Your task to perform on an android device: delete location history Image 0: 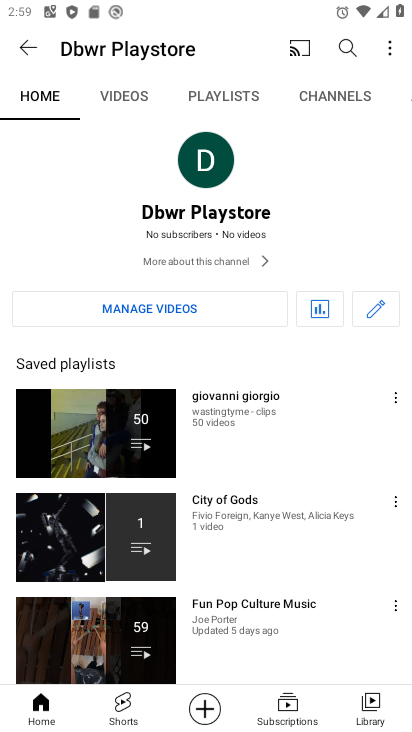
Step 0: press home button
Your task to perform on an android device: delete location history Image 1: 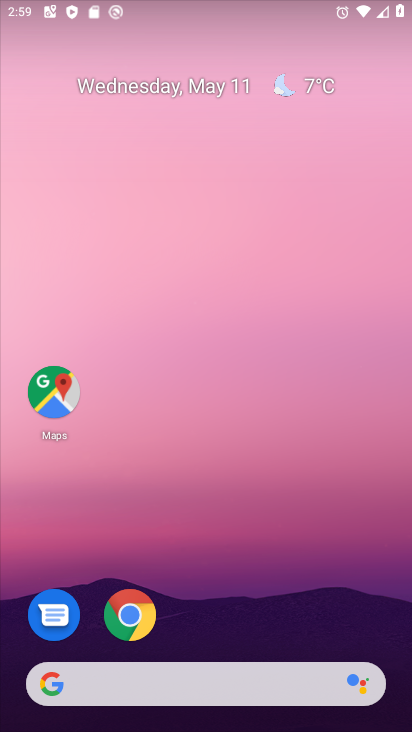
Step 1: drag from (274, 439) to (296, 60)
Your task to perform on an android device: delete location history Image 2: 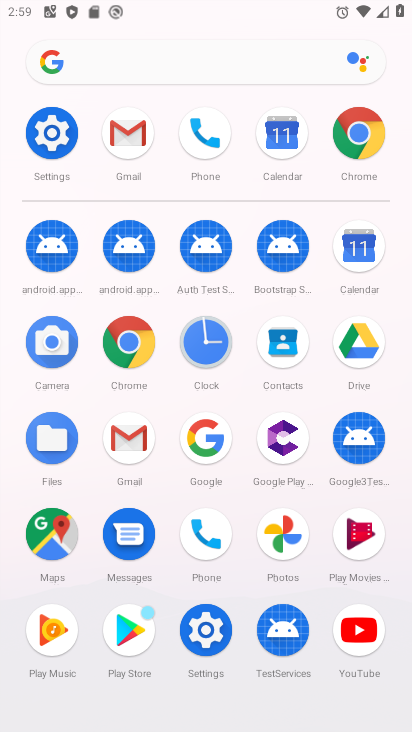
Step 2: click (47, 530)
Your task to perform on an android device: delete location history Image 3: 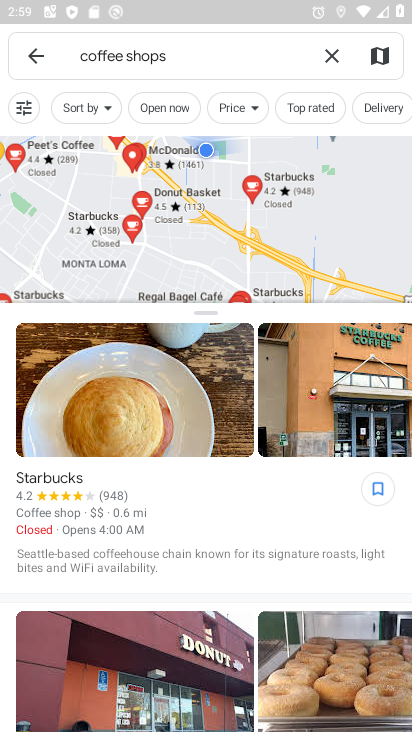
Step 3: click (30, 52)
Your task to perform on an android device: delete location history Image 4: 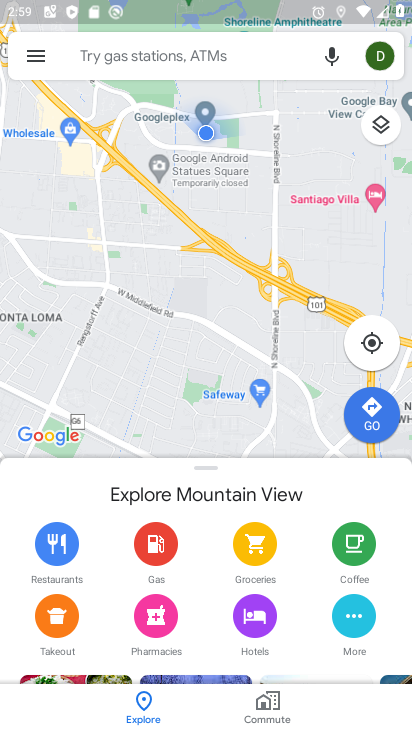
Step 4: click (29, 54)
Your task to perform on an android device: delete location history Image 5: 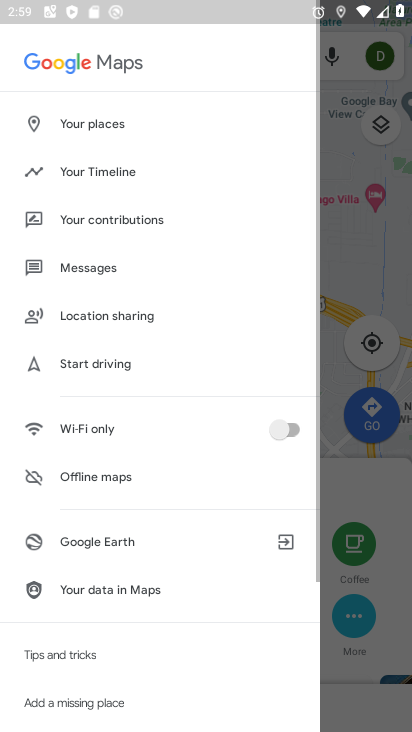
Step 5: drag from (121, 576) to (252, 168)
Your task to perform on an android device: delete location history Image 6: 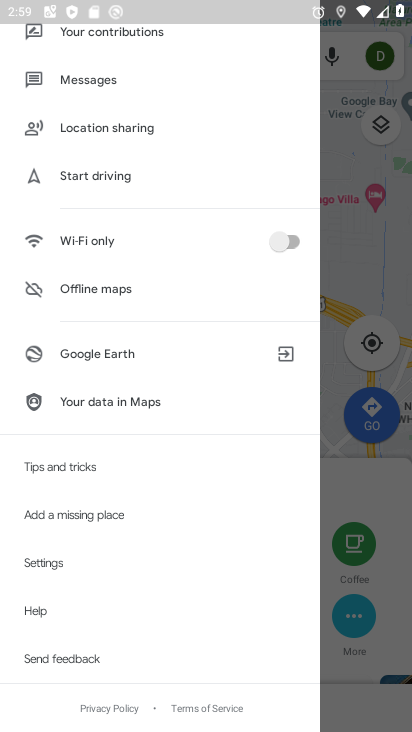
Step 6: click (73, 571)
Your task to perform on an android device: delete location history Image 7: 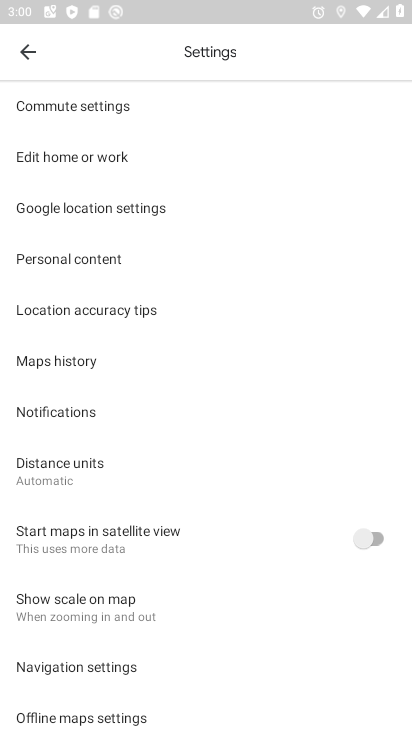
Step 7: click (99, 364)
Your task to perform on an android device: delete location history Image 8: 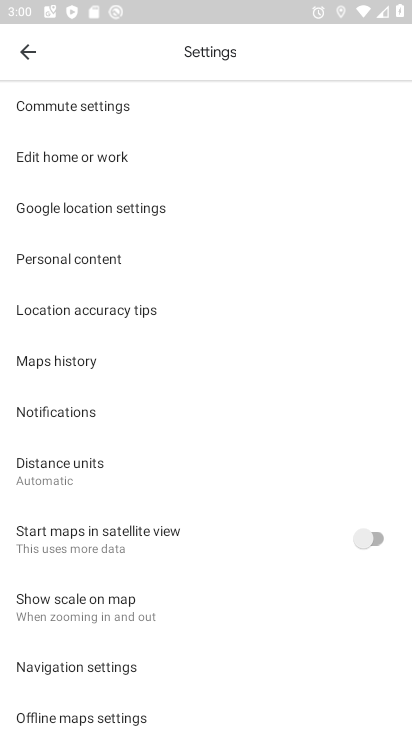
Step 8: click (78, 358)
Your task to perform on an android device: delete location history Image 9: 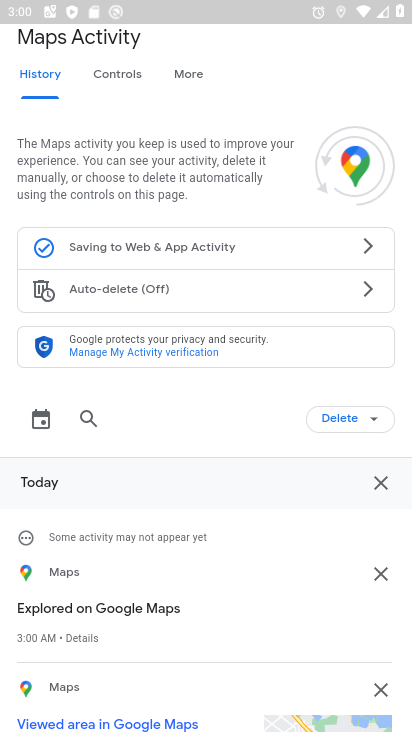
Step 9: click (326, 414)
Your task to perform on an android device: delete location history Image 10: 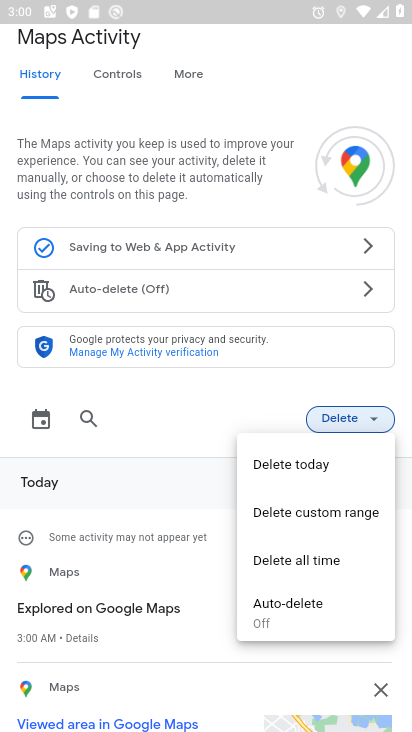
Step 10: click (302, 562)
Your task to perform on an android device: delete location history Image 11: 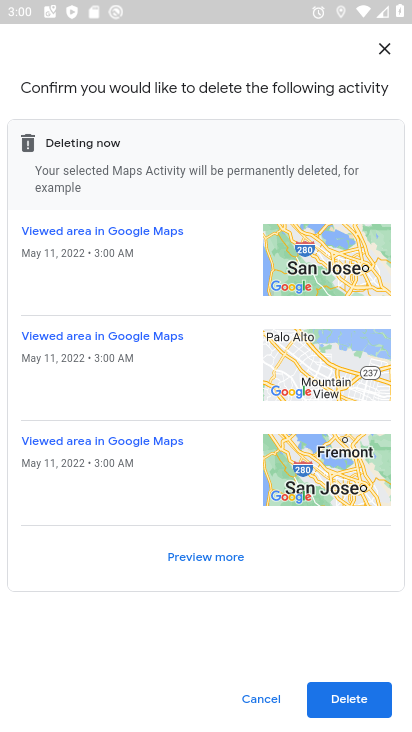
Step 11: click (369, 699)
Your task to perform on an android device: delete location history Image 12: 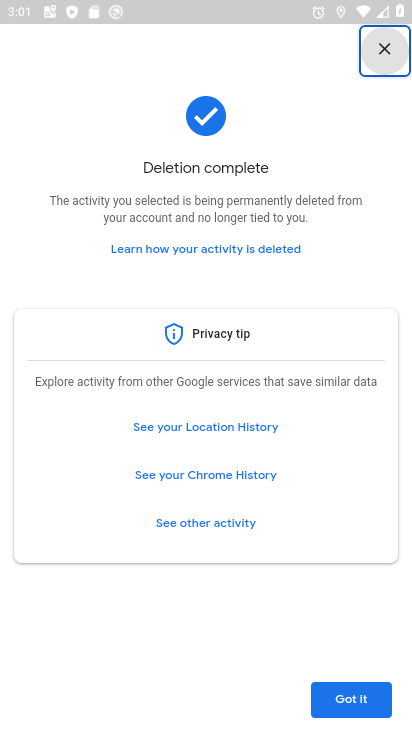
Step 12: task complete